Your task to perform on an android device: Open display settings Image 0: 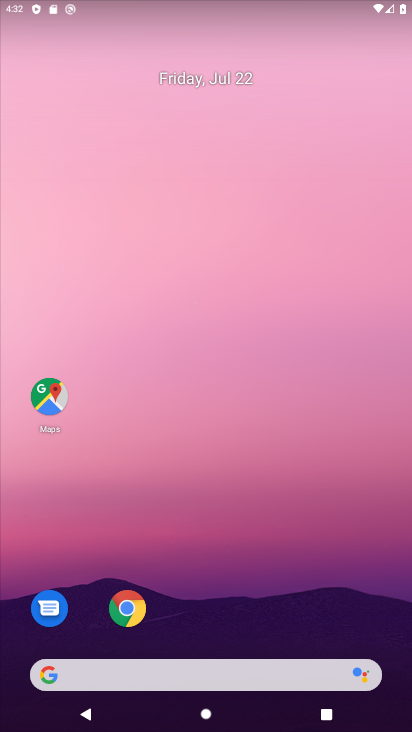
Step 0: drag from (240, 617) to (267, 209)
Your task to perform on an android device: Open display settings Image 1: 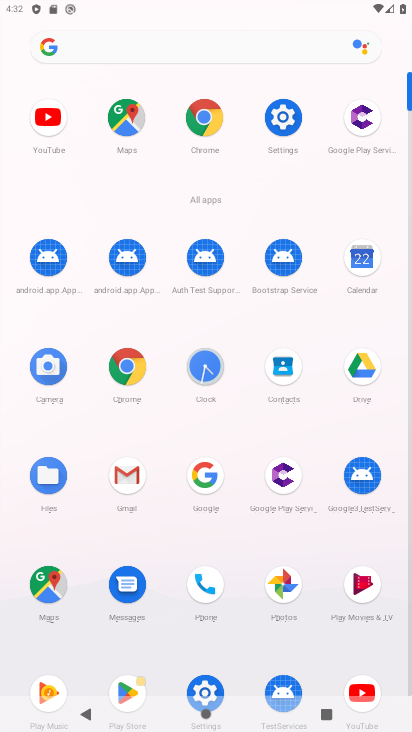
Step 1: click (296, 115)
Your task to perform on an android device: Open display settings Image 2: 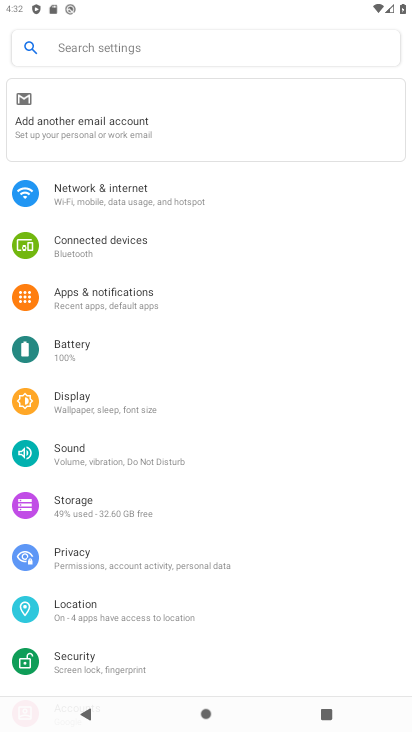
Step 2: click (91, 410)
Your task to perform on an android device: Open display settings Image 3: 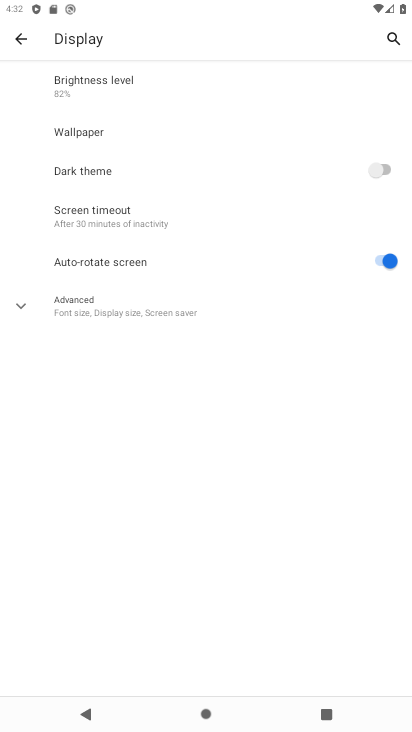
Step 3: task complete